Your task to perform on an android device: Open the stopwatch Image 0: 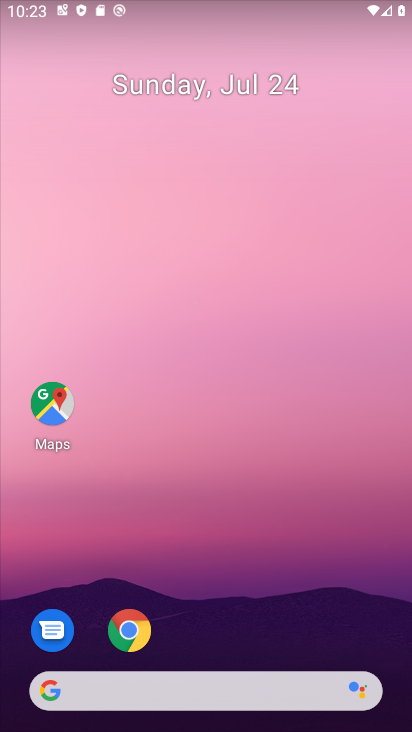
Step 0: drag from (203, 627) to (223, 140)
Your task to perform on an android device: Open the stopwatch Image 1: 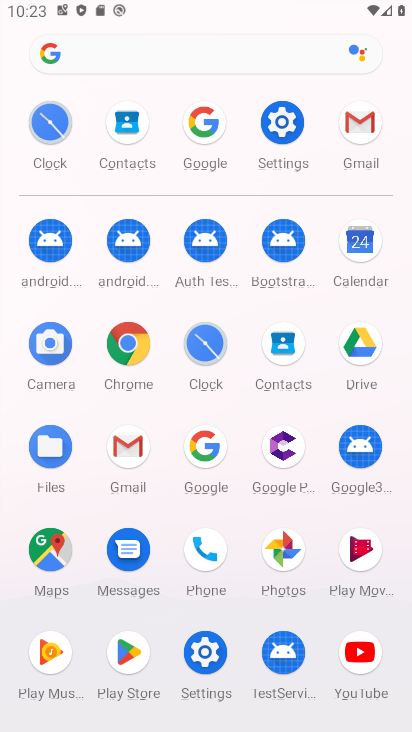
Step 1: click (216, 349)
Your task to perform on an android device: Open the stopwatch Image 2: 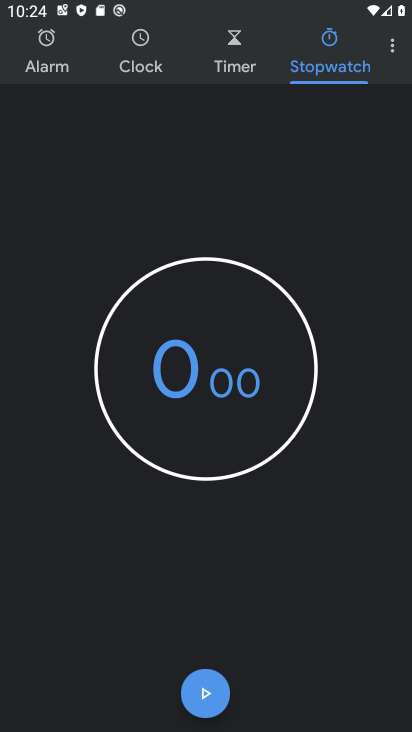
Step 2: task complete